Your task to perform on an android device: Open eBay Image 0: 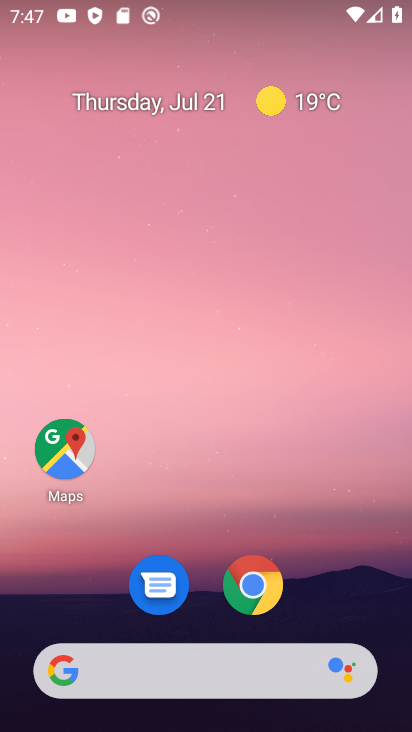
Step 0: click (214, 675)
Your task to perform on an android device: Open eBay Image 1: 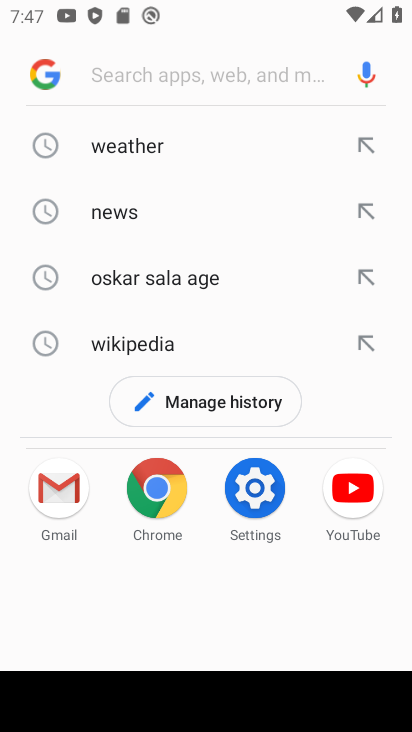
Step 1: type "ebay"
Your task to perform on an android device: Open eBay Image 2: 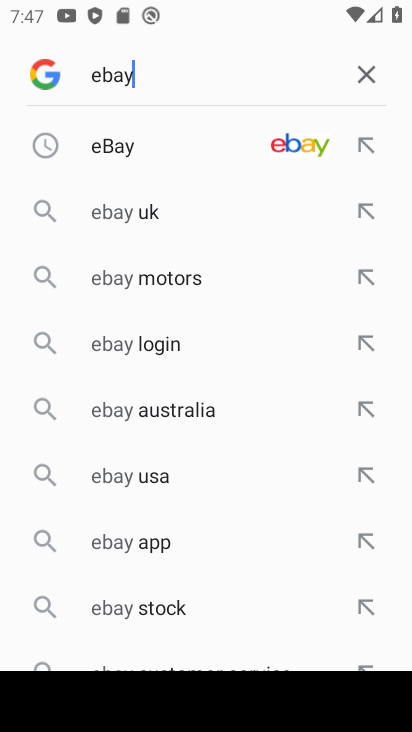
Step 2: click (290, 147)
Your task to perform on an android device: Open eBay Image 3: 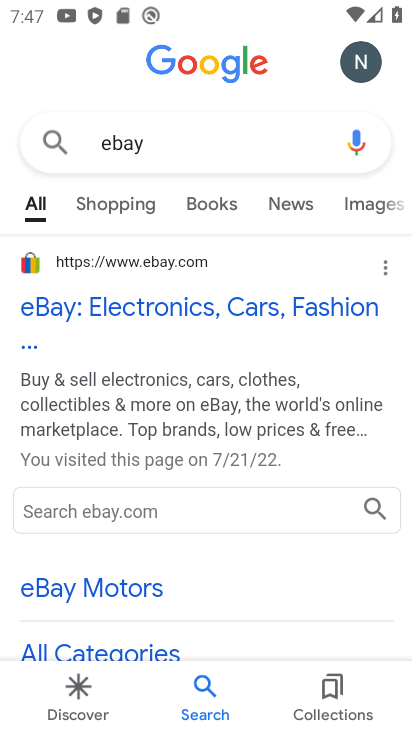
Step 3: click (53, 307)
Your task to perform on an android device: Open eBay Image 4: 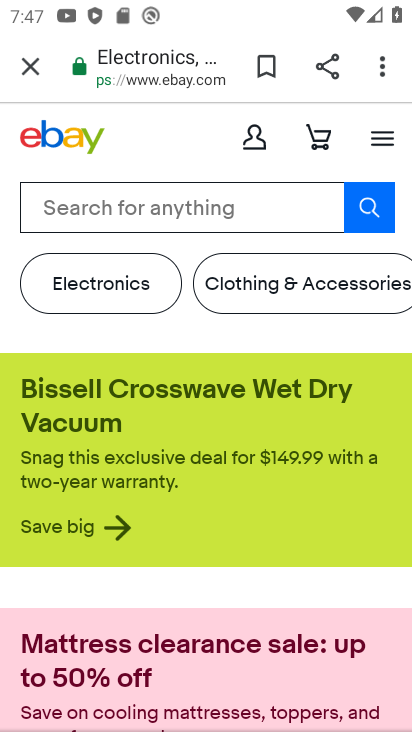
Step 4: task complete